Your task to perform on an android device: change your default location settings in chrome Image 0: 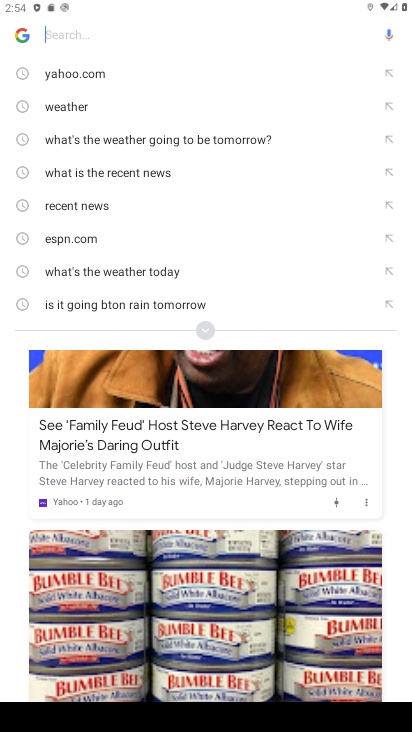
Step 0: press home button
Your task to perform on an android device: change your default location settings in chrome Image 1: 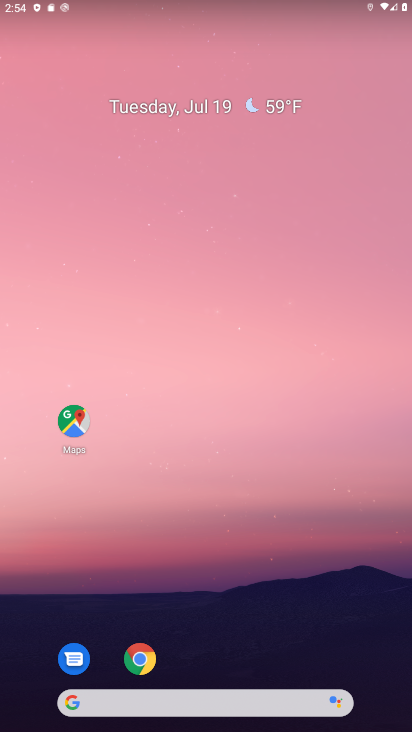
Step 1: drag from (179, 695) to (322, 111)
Your task to perform on an android device: change your default location settings in chrome Image 2: 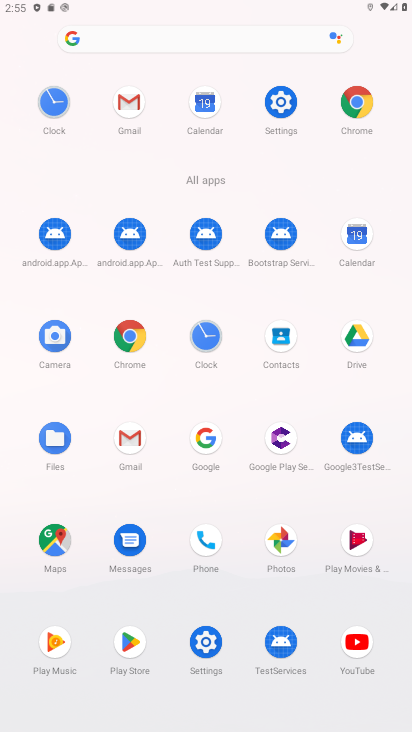
Step 2: click (130, 336)
Your task to perform on an android device: change your default location settings in chrome Image 3: 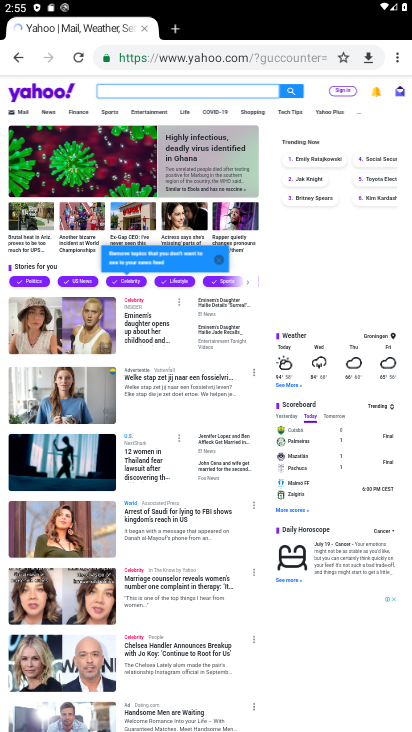
Step 3: click (398, 55)
Your task to perform on an android device: change your default location settings in chrome Image 4: 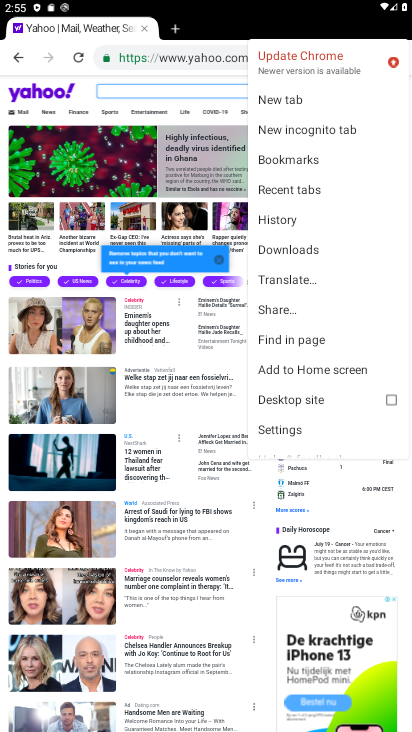
Step 4: click (296, 428)
Your task to perform on an android device: change your default location settings in chrome Image 5: 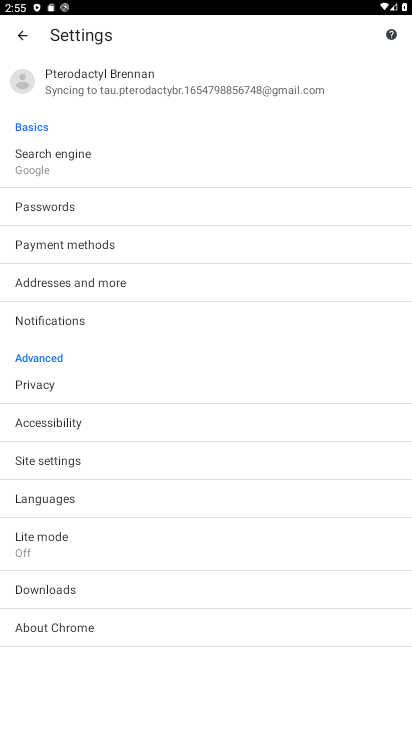
Step 5: click (67, 457)
Your task to perform on an android device: change your default location settings in chrome Image 6: 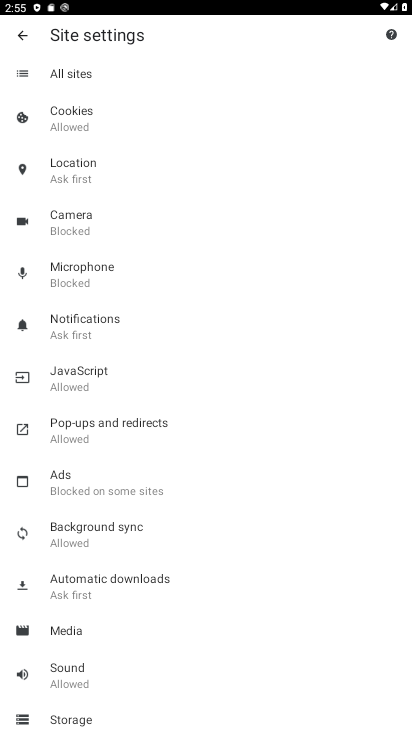
Step 6: click (97, 164)
Your task to perform on an android device: change your default location settings in chrome Image 7: 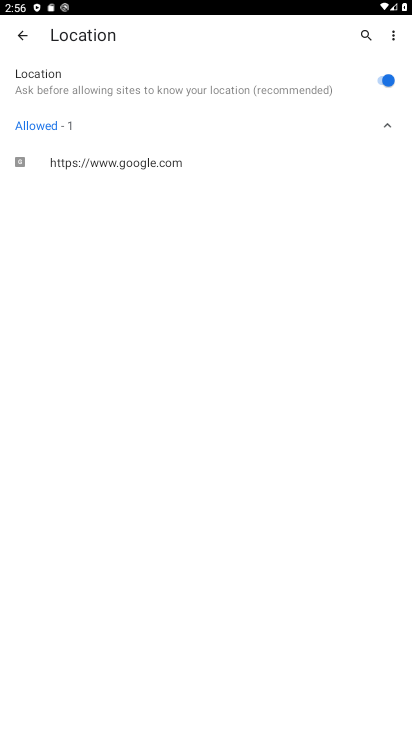
Step 7: click (378, 84)
Your task to perform on an android device: change your default location settings in chrome Image 8: 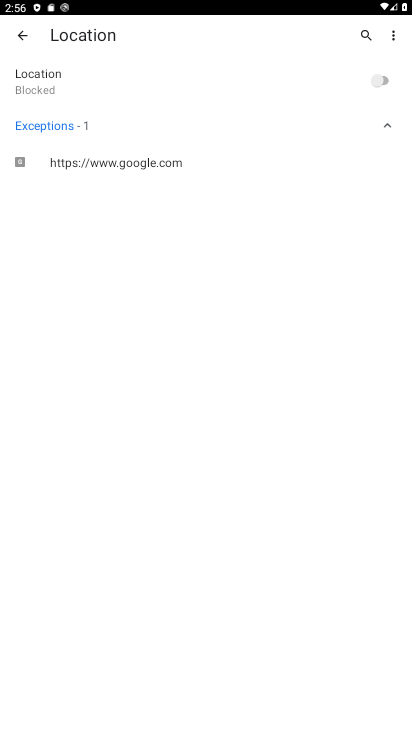
Step 8: task complete